Your task to perform on an android device: Open Youtube and go to the subscriptions tab Image 0: 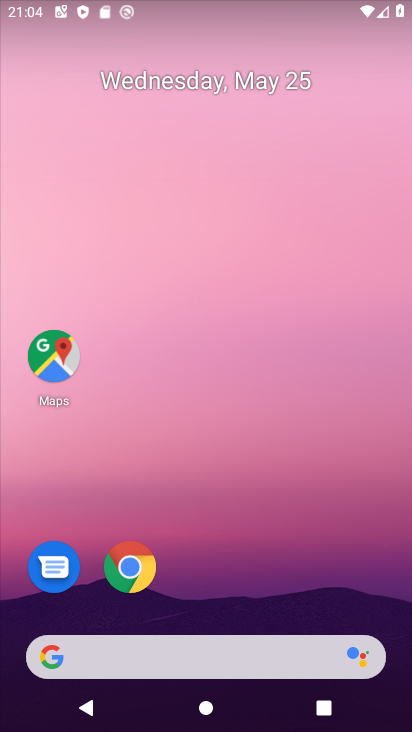
Step 0: drag from (209, 583) to (290, 21)
Your task to perform on an android device: Open Youtube and go to the subscriptions tab Image 1: 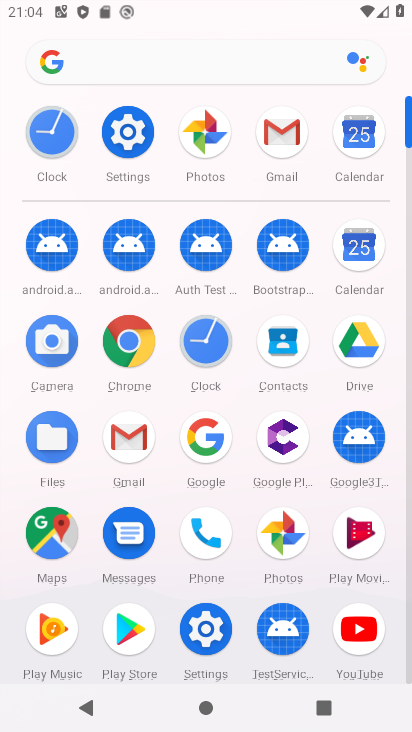
Step 1: click (364, 627)
Your task to perform on an android device: Open Youtube and go to the subscriptions tab Image 2: 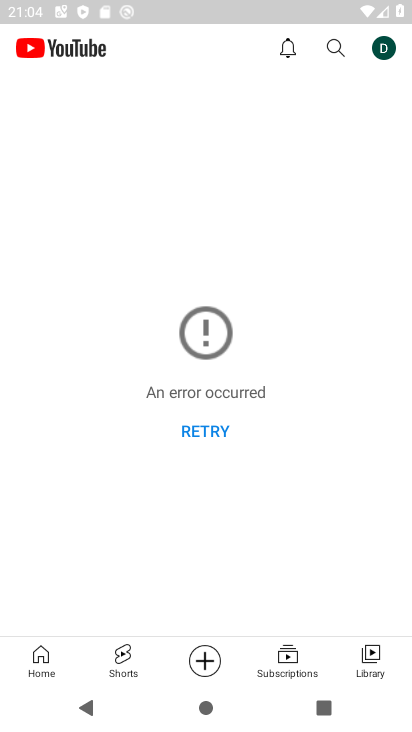
Step 2: click (292, 667)
Your task to perform on an android device: Open Youtube and go to the subscriptions tab Image 3: 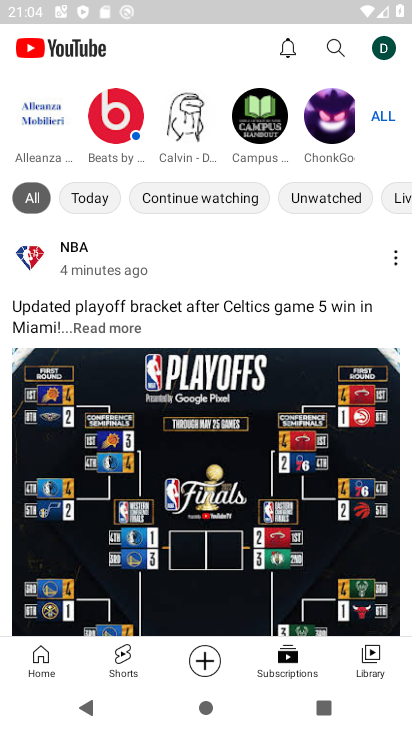
Step 3: task complete